Your task to perform on an android device: Open the stopwatch Image 0: 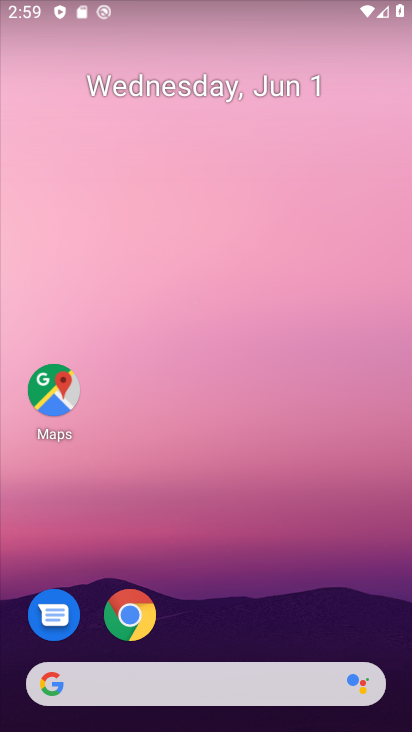
Step 0: drag from (326, 689) to (301, 15)
Your task to perform on an android device: Open the stopwatch Image 1: 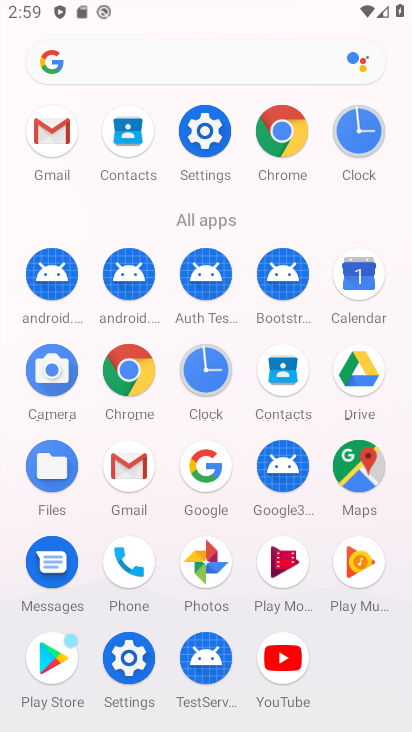
Step 1: click (215, 381)
Your task to perform on an android device: Open the stopwatch Image 2: 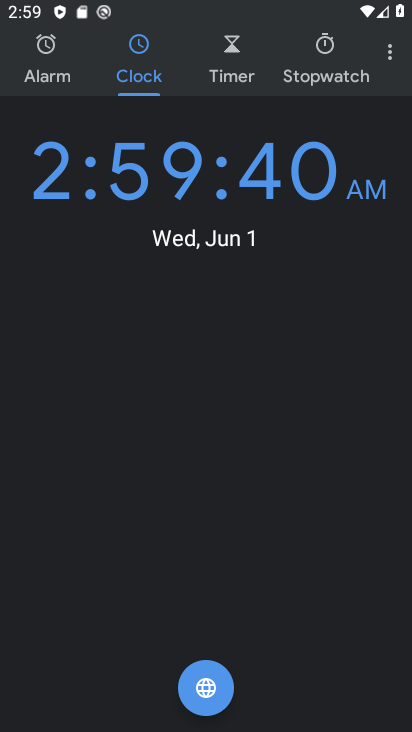
Step 2: click (340, 53)
Your task to perform on an android device: Open the stopwatch Image 3: 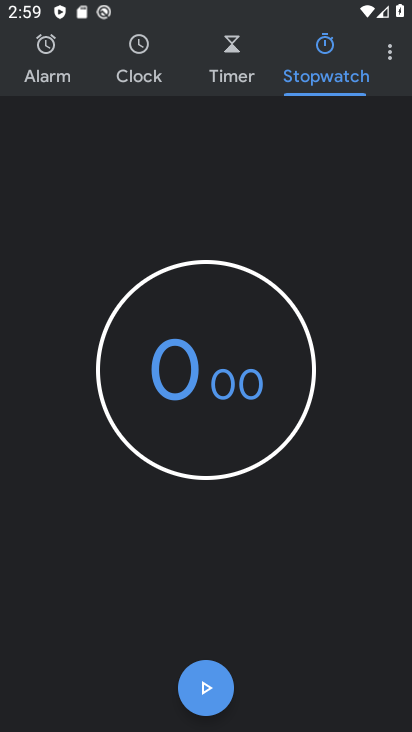
Step 3: click (209, 680)
Your task to perform on an android device: Open the stopwatch Image 4: 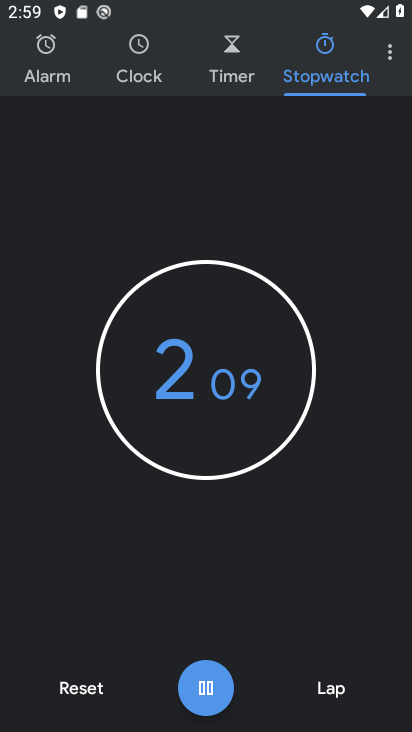
Step 4: task complete